Your task to perform on an android device: Open the stopwatch Image 0: 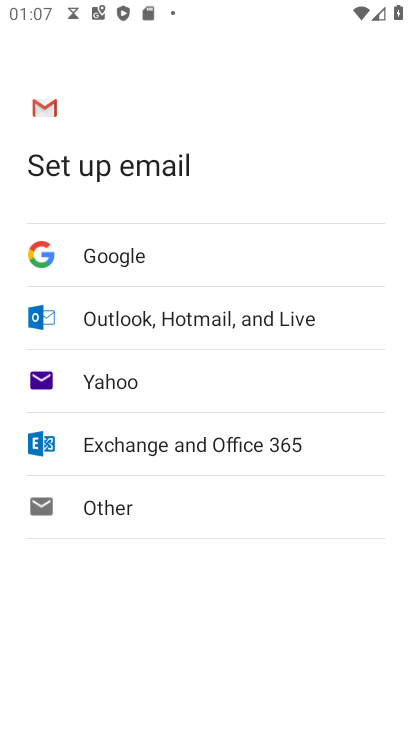
Step 0: press home button
Your task to perform on an android device: Open the stopwatch Image 1: 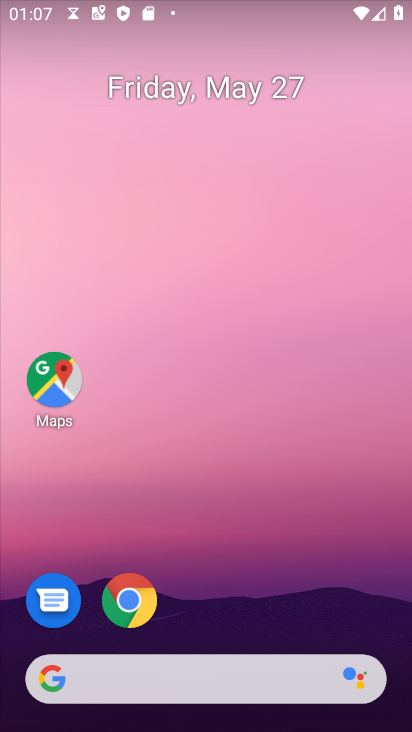
Step 1: drag from (304, 554) to (384, 238)
Your task to perform on an android device: Open the stopwatch Image 2: 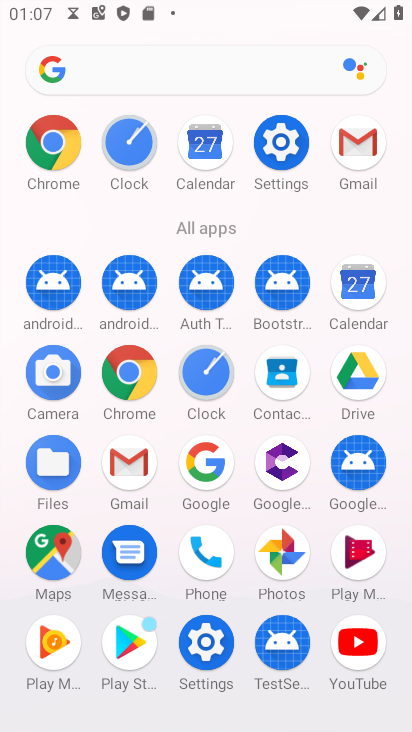
Step 2: click (117, 153)
Your task to perform on an android device: Open the stopwatch Image 3: 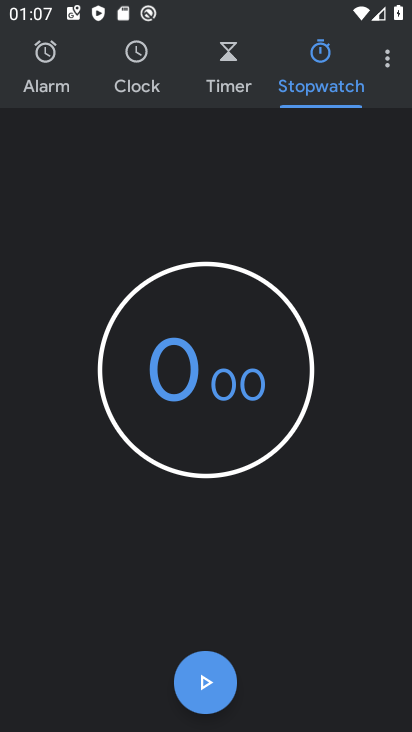
Step 3: task complete